Your task to perform on an android device: Open calendar and show me the fourth week of next month Image 0: 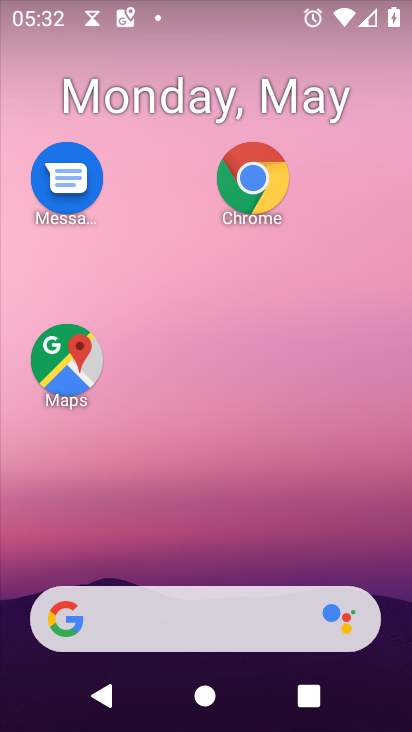
Step 0: drag from (182, 541) to (175, 33)
Your task to perform on an android device: Open calendar and show me the fourth week of next month Image 1: 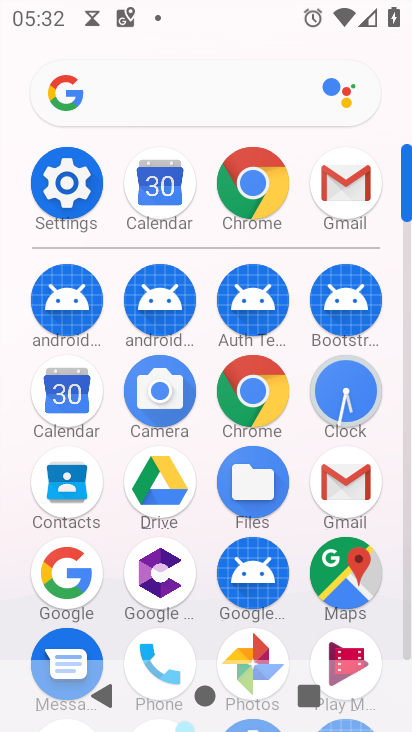
Step 1: click (71, 393)
Your task to perform on an android device: Open calendar and show me the fourth week of next month Image 2: 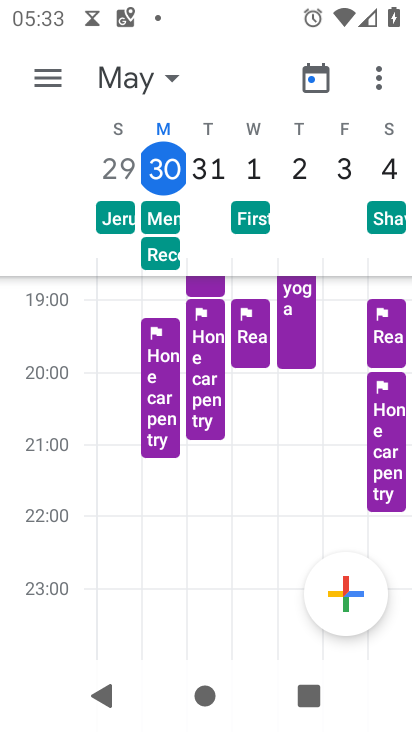
Step 2: click (112, 68)
Your task to perform on an android device: Open calendar and show me the fourth week of next month Image 3: 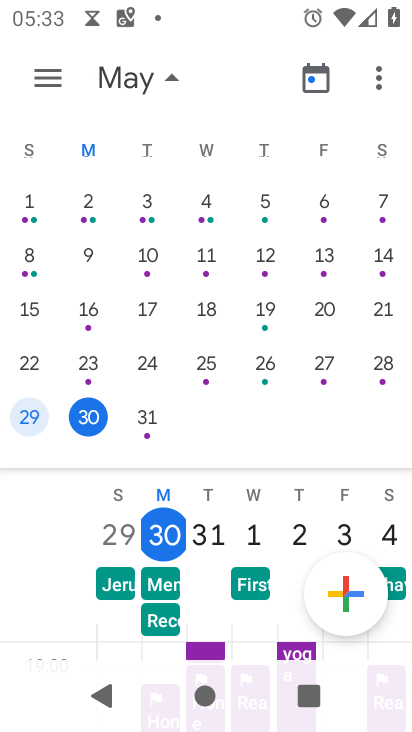
Step 3: drag from (340, 278) to (5, 205)
Your task to perform on an android device: Open calendar and show me the fourth week of next month Image 4: 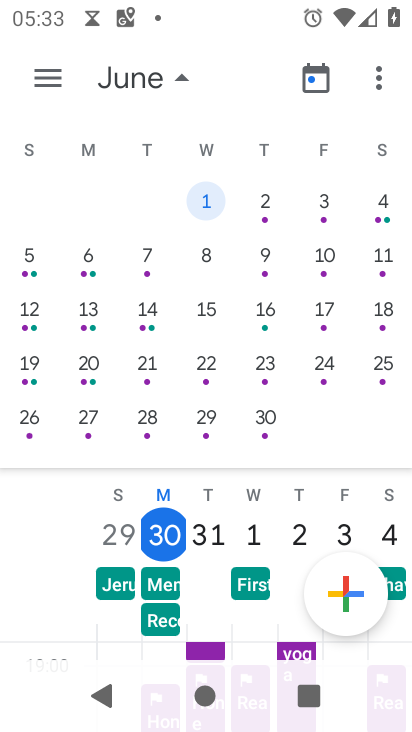
Step 4: click (31, 423)
Your task to perform on an android device: Open calendar and show me the fourth week of next month Image 5: 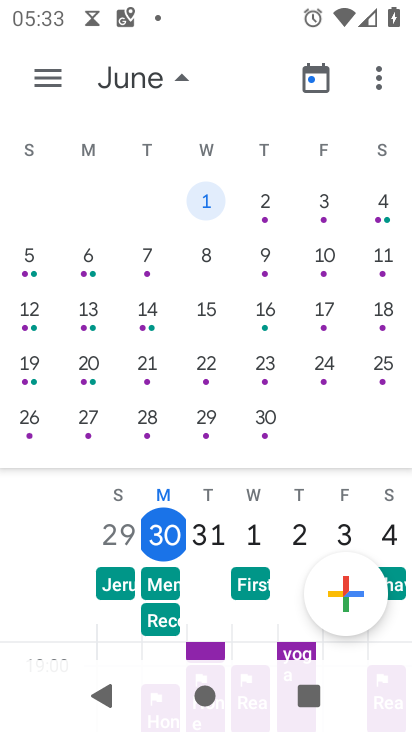
Step 5: click (31, 423)
Your task to perform on an android device: Open calendar and show me the fourth week of next month Image 6: 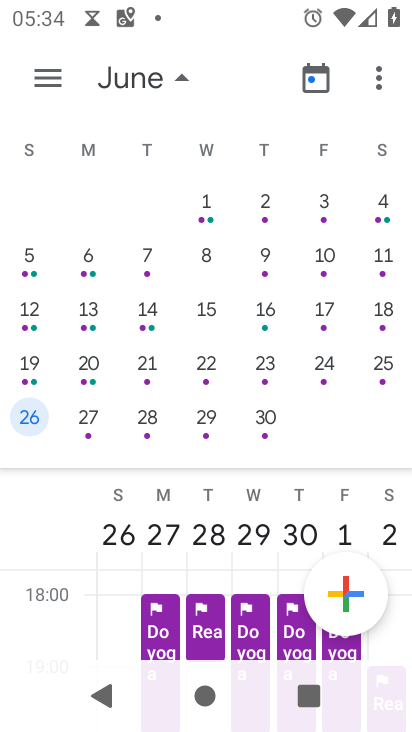
Step 6: drag from (163, 584) to (239, 363)
Your task to perform on an android device: Open calendar and show me the fourth week of next month Image 7: 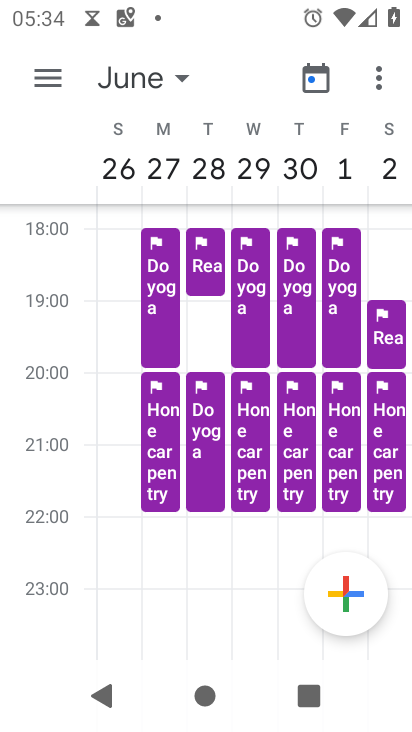
Step 7: drag from (209, 548) to (276, 166)
Your task to perform on an android device: Open calendar and show me the fourth week of next month Image 8: 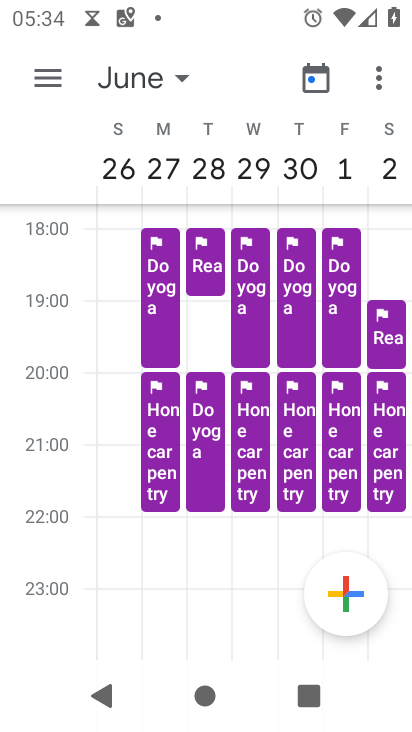
Step 8: drag from (180, 600) to (225, 0)
Your task to perform on an android device: Open calendar and show me the fourth week of next month Image 9: 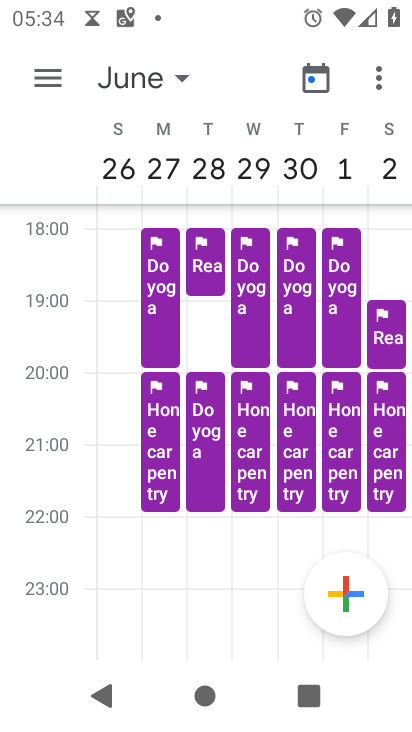
Step 9: click (241, 330)
Your task to perform on an android device: Open calendar and show me the fourth week of next month Image 10: 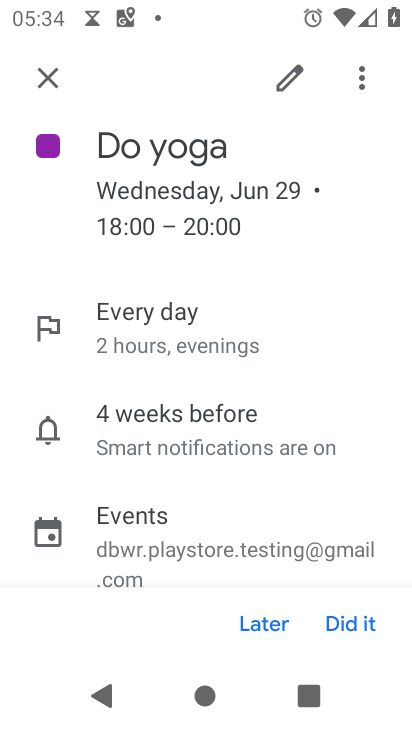
Step 10: task complete